Your task to perform on an android device: change the clock display to show seconds Image 0: 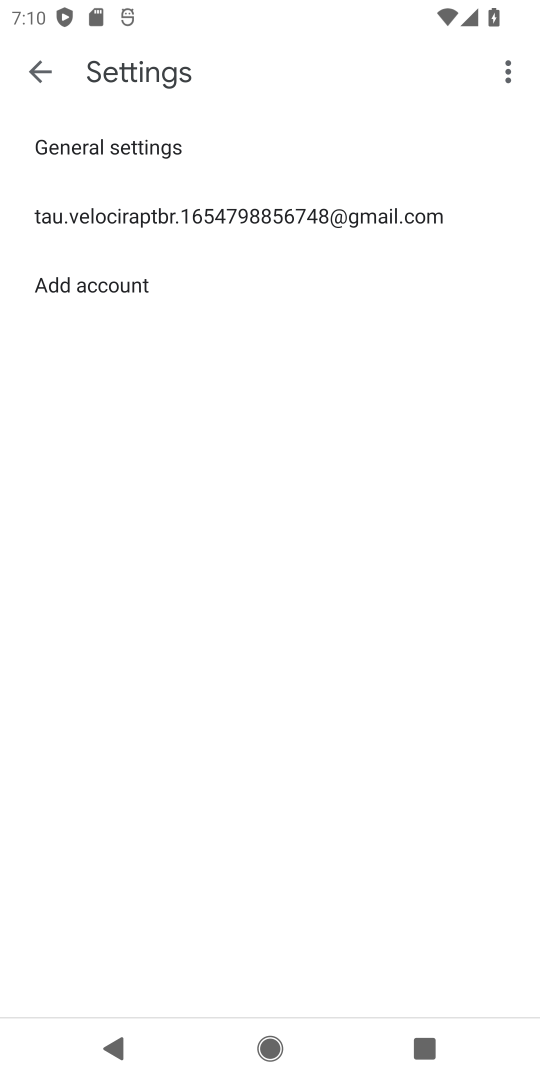
Step 0: press home button
Your task to perform on an android device: change the clock display to show seconds Image 1: 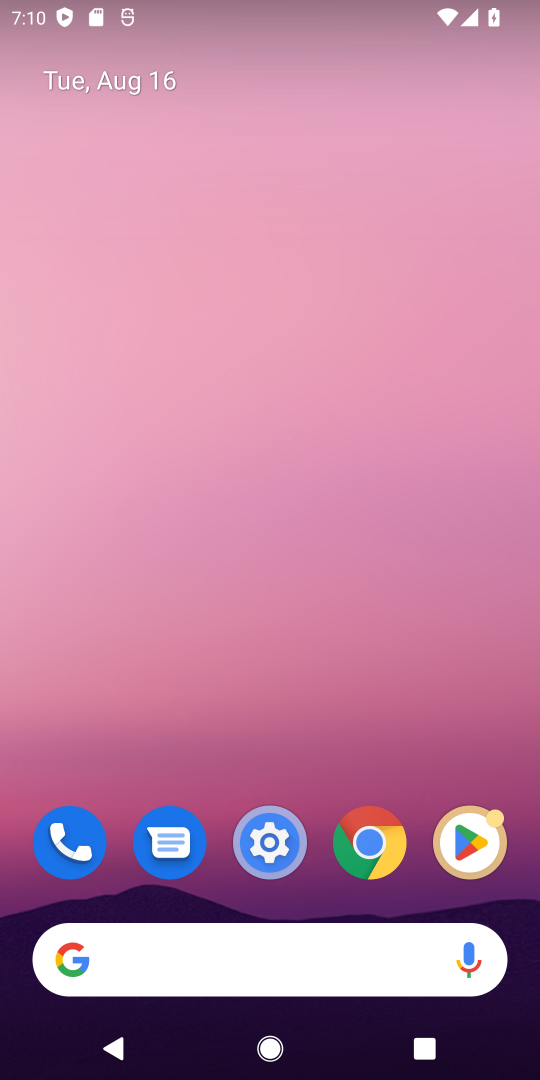
Step 1: drag from (311, 788) to (282, 0)
Your task to perform on an android device: change the clock display to show seconds Image 2: 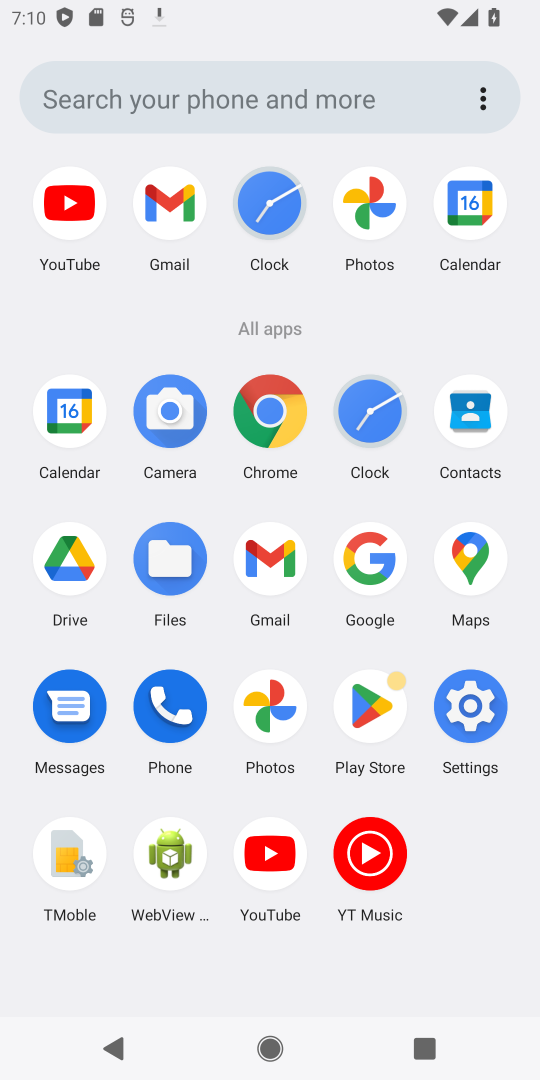
Step 2: click (364, 407)
Your task to perform on an android device: change the clock display to show seconds Image 3: 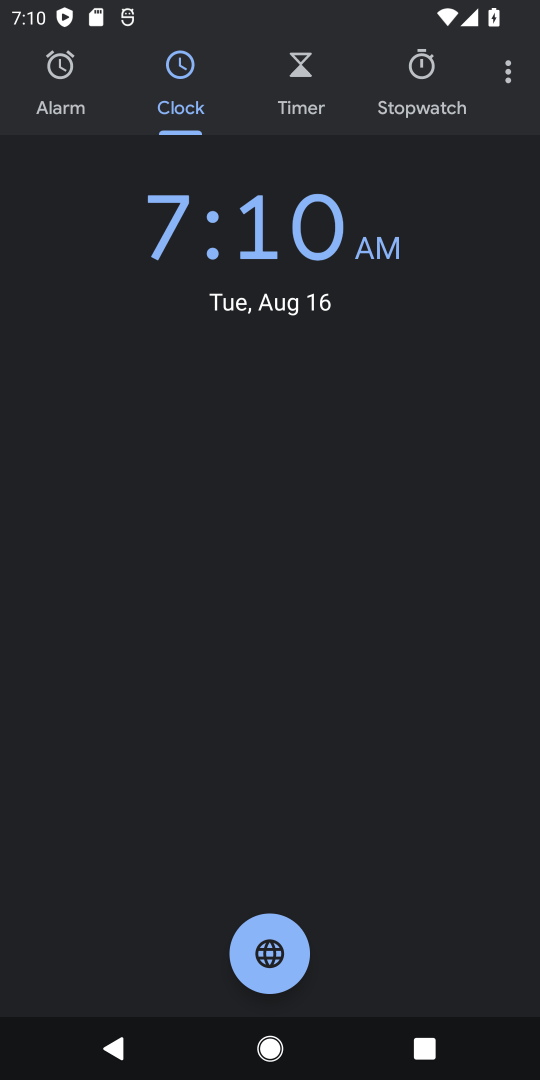
Step 3: click (507, 74)
Your task to perform on an android device: change the clock display to show seconds Image 4: 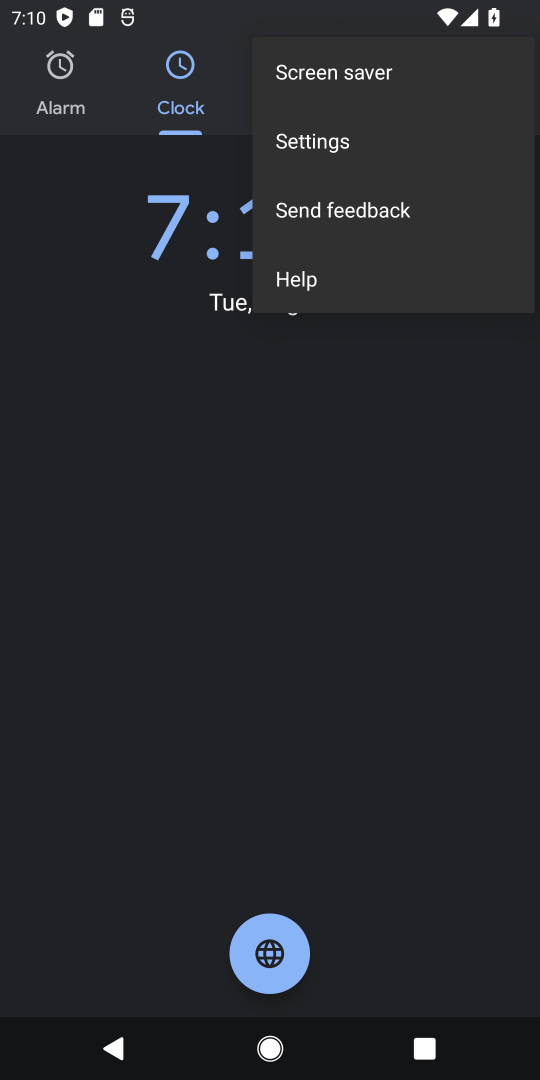
Step 4: click (373, 138)
Your task to perform on an android device: change the clock display to show seconds Image 5: 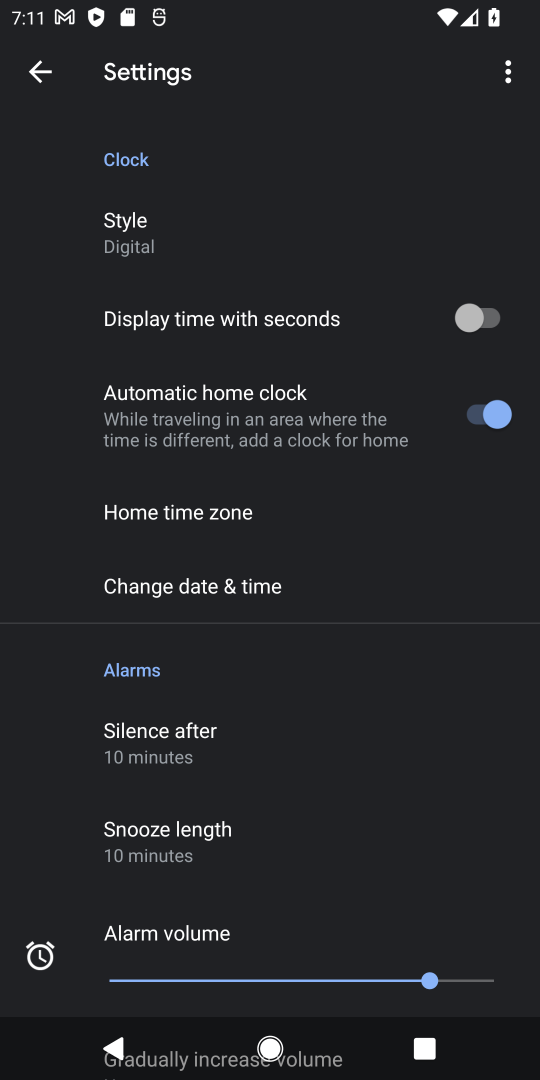
Step 5: drag from (298, 680) to (299, 207)
Your task to perform on an android device: change the clock display to show seconds Image 6: 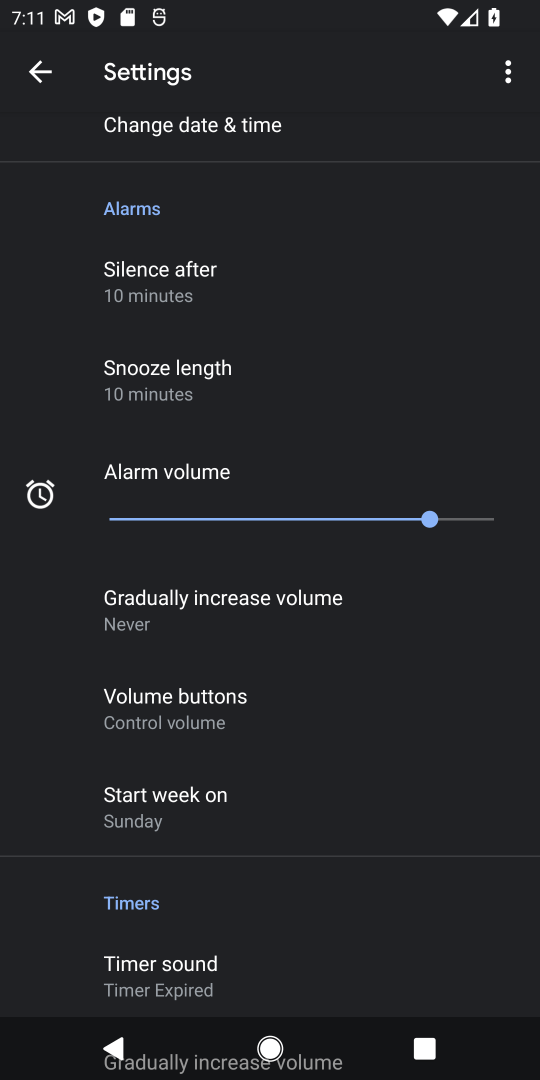
Step 6: drag from (321, 180) to (344, 909)
Your task to perform on an android device: change the clock display to show seconds Image 7: 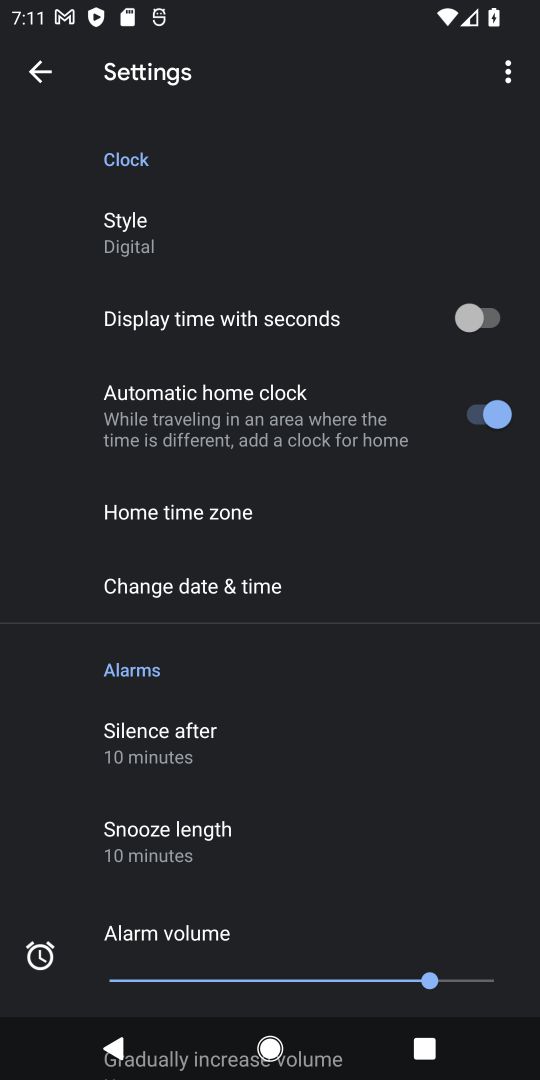
Step 7: click (494, 315)
Your task to perform on an android device: change the clock display to show seconds Image 8: 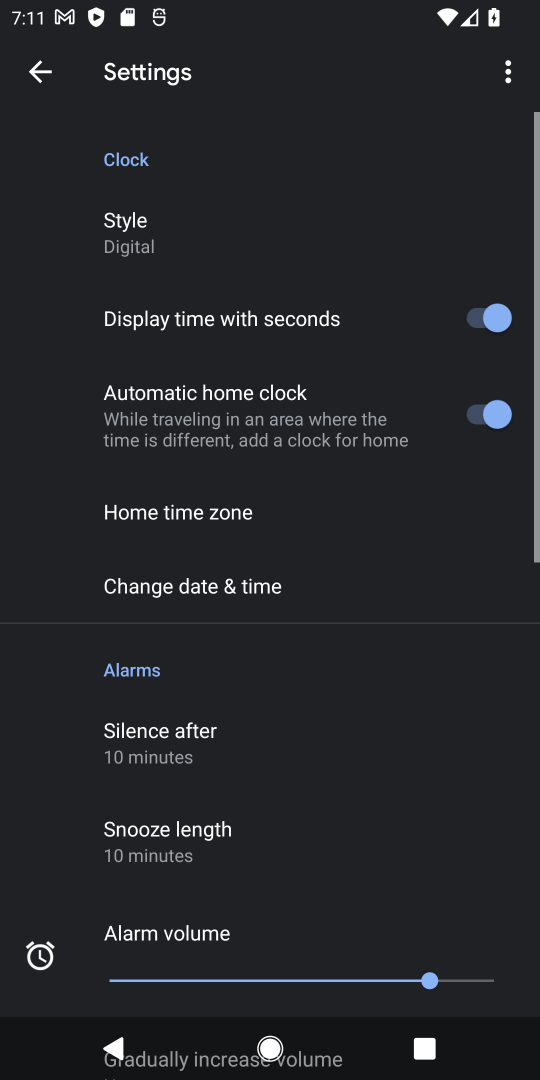
Step 8: task complete